Your task to perform on an android device: Search for Italian restaurants on Maps Image 0: 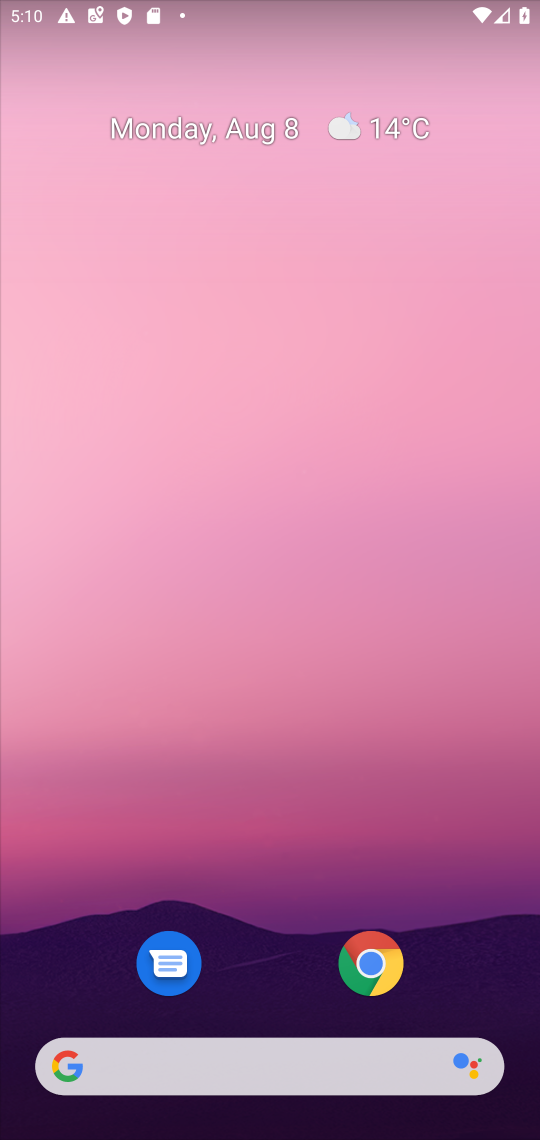
Step 0: drag from (319, 849) to (298, 340)
Your task to perform on an android device: Search for Italian restaurants on Maps Image 1: 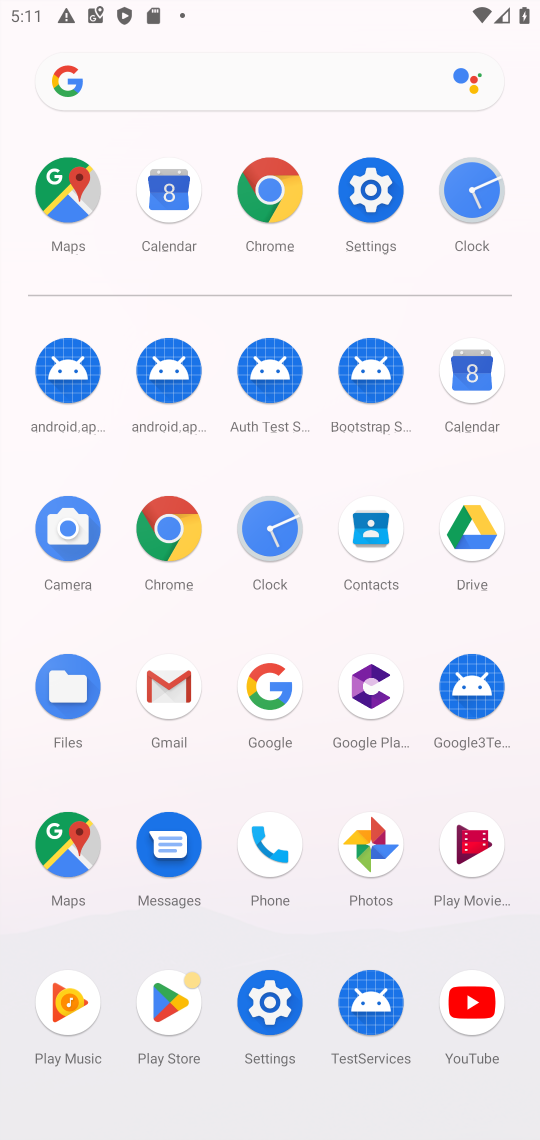
Step 1: click (88, 179)
Your task to perform on an android device: Search for Italian restaurants on Maps Image 2: 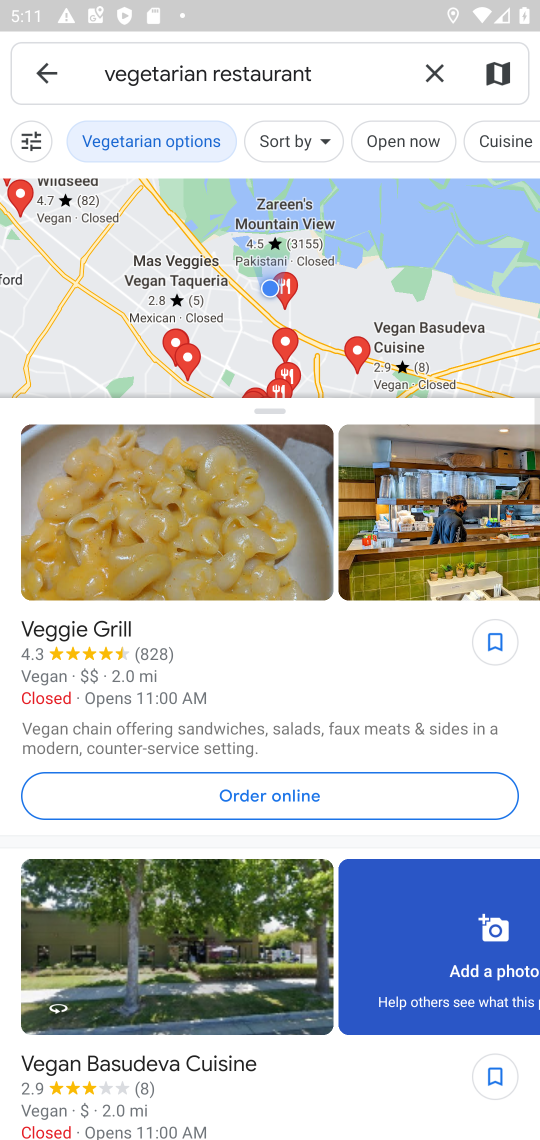
Step 2: click (436, 59)
Your task to perform on an android device: Search for Italian restaurants on Maps Image 3: 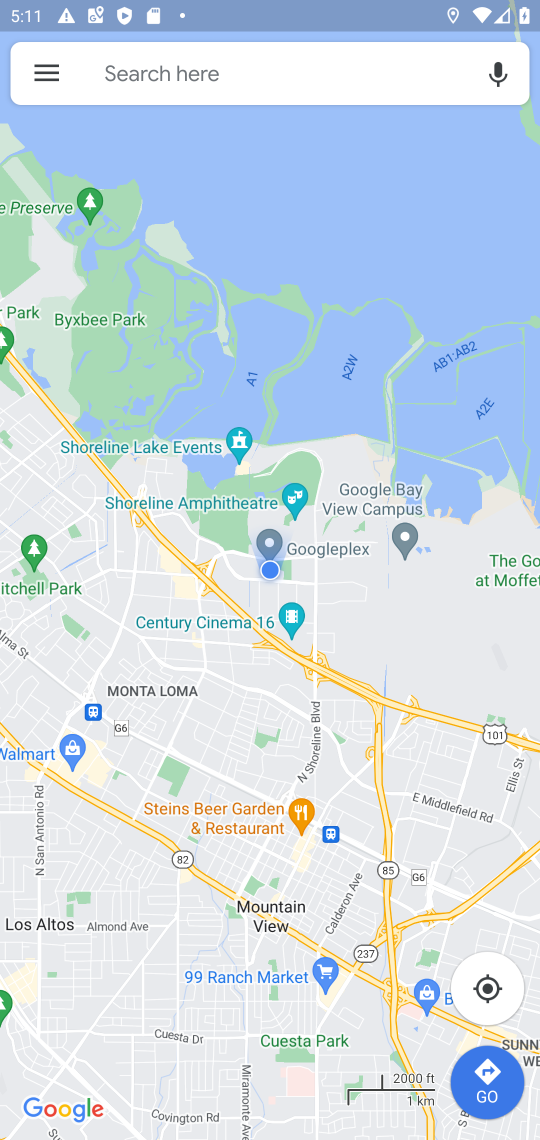
Step 3: click (287, 90)
Your task to perform on an android device: Search for Italian restaurants on Maps Image 4: 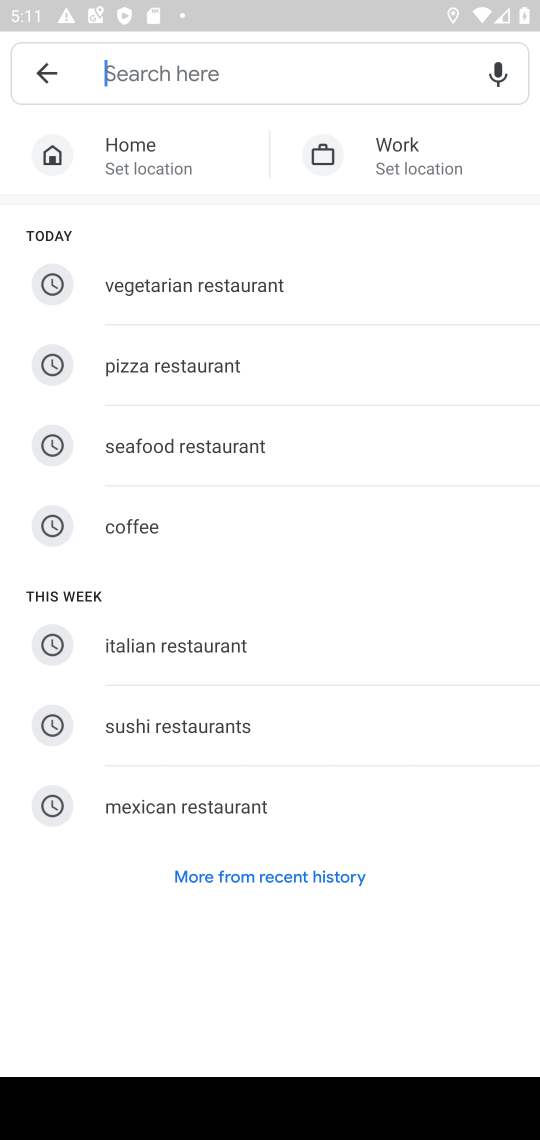
Step 4: type "italian restaurants"
Your task to perform on an android device: Search for Italian restaurants on Maps Image 5: 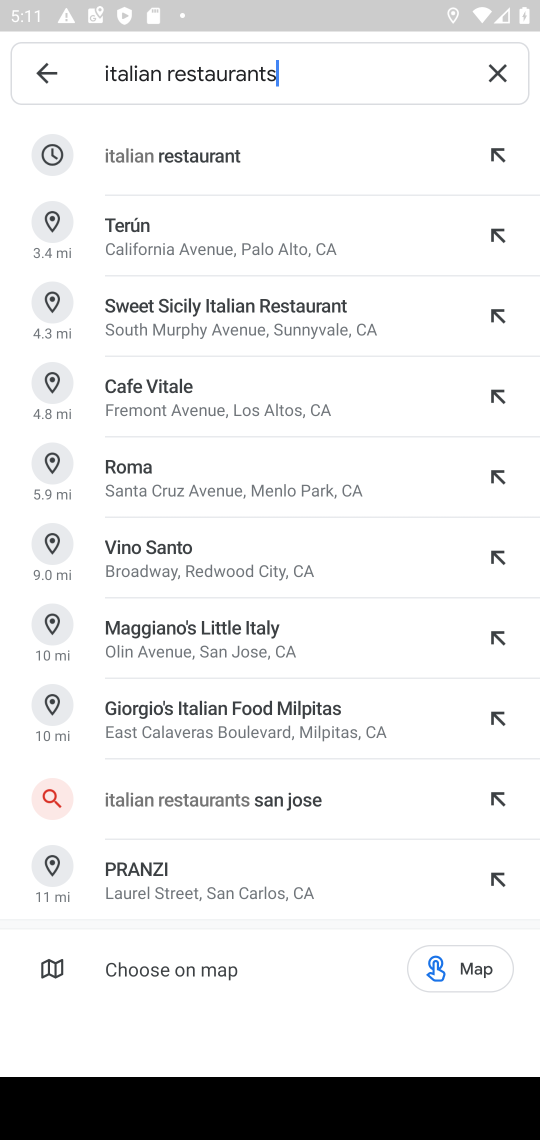
Step 5: click (278, 159)
Your task to perform on an android device: Search for Italian restaurants on Maps Image 6: 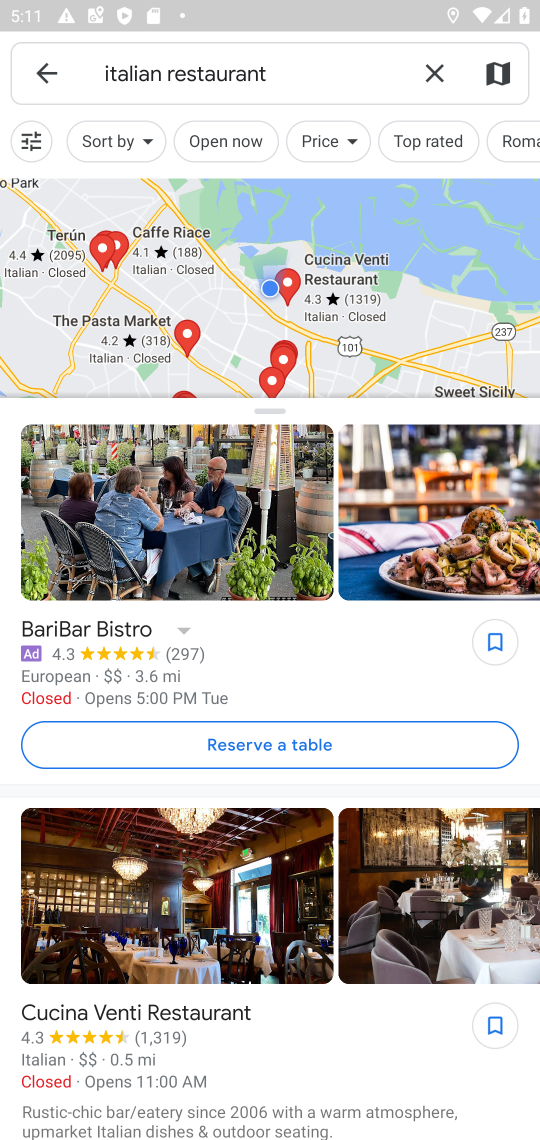
Step 6: task complete